Your task to perform on an android device: clear history in the chrome app Image 0: 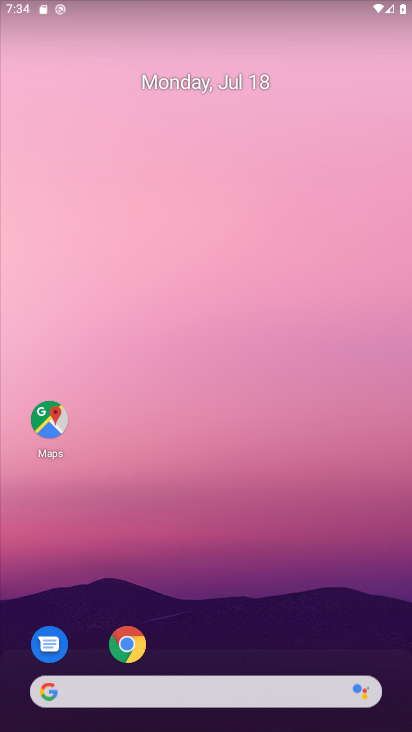
Step 0: click (136, 662)
Your task to perform on an android device: clear history in the chrome app Image 1: 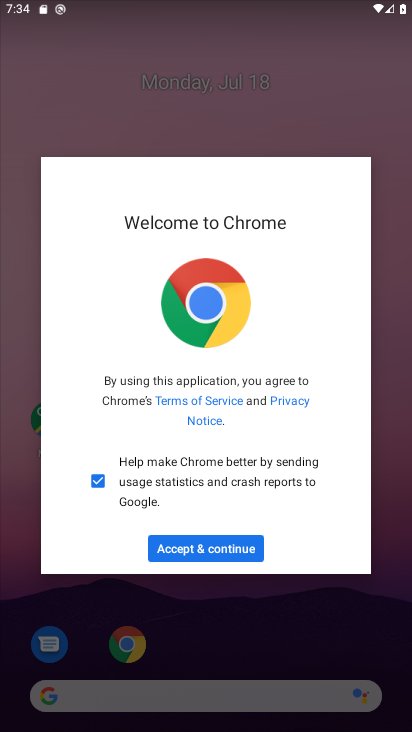
Step 1: click (218, 544)
Your task to perform on an android device: clear history in the chrome app Image 2: 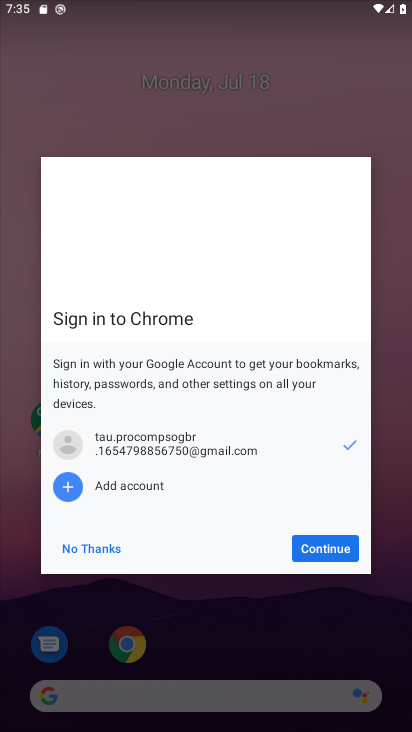
Step 2: click (319, 539)
Your task to perform on an android device: clear history in the chrome app Image 3: 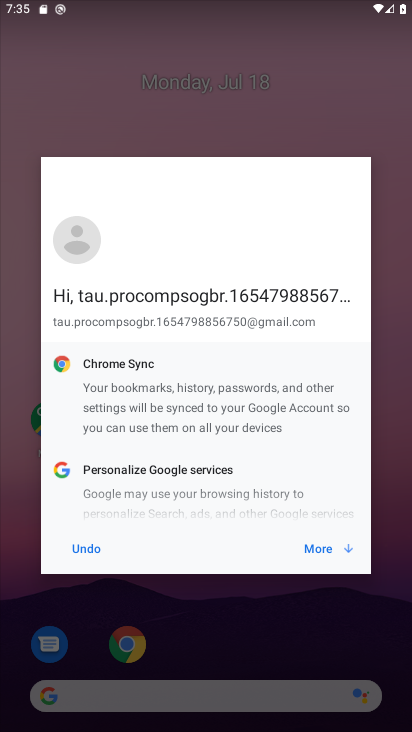
Step 3: click (329, 554)
Your task to perform on an android device: clear history in the chrome app Image 4: 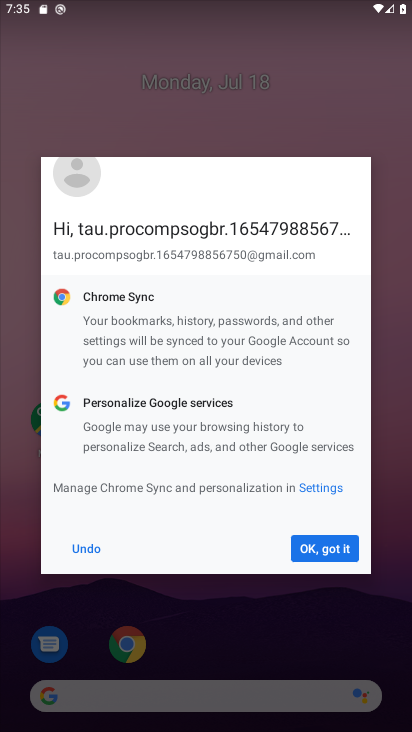
Step 4: click (329, 554)
Your task to perform on an android device: clear history in the chrome app Image 5: 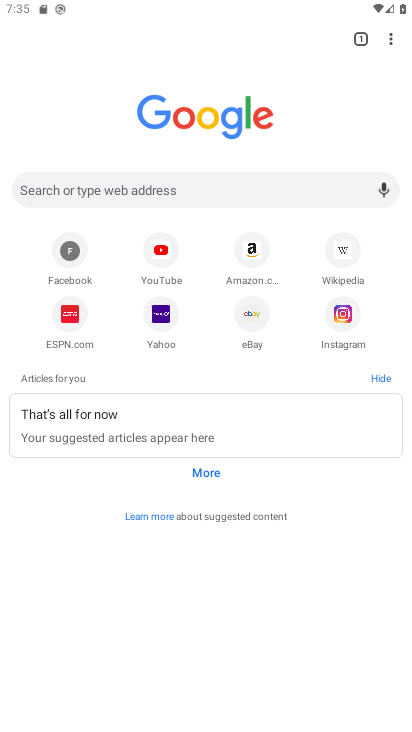
Step 5: click (395, 36)
Your task to perform on an android device: clear history in the chrome app Image 6: 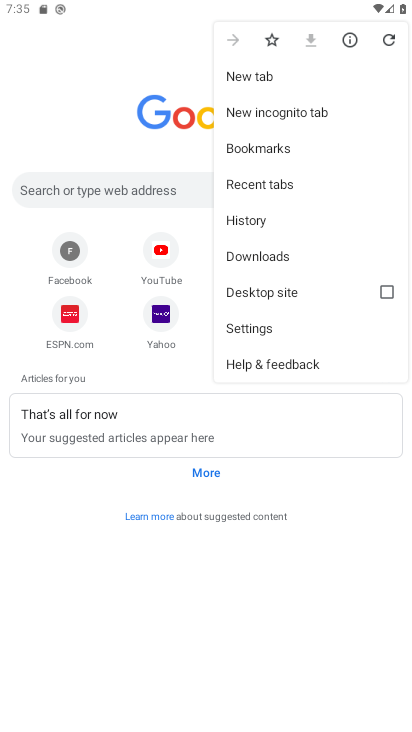
Step 6: click (281, 228)
Your task to perform on an android device: clear history in the chrome app Image 7: 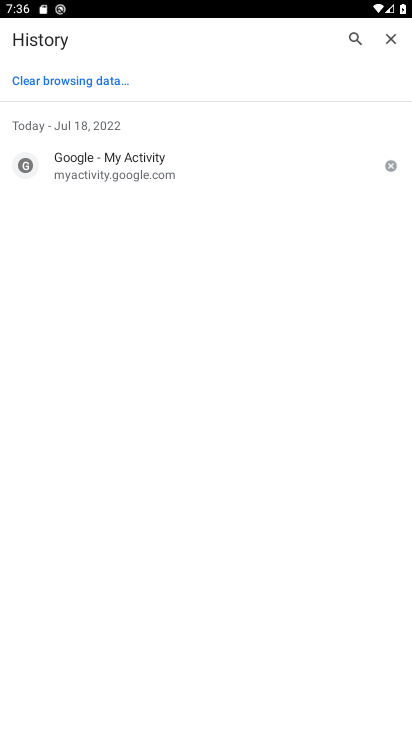
Step 7: click (80, 86)
Your task to perform on an android device: clear history in the chrome app Image 8: 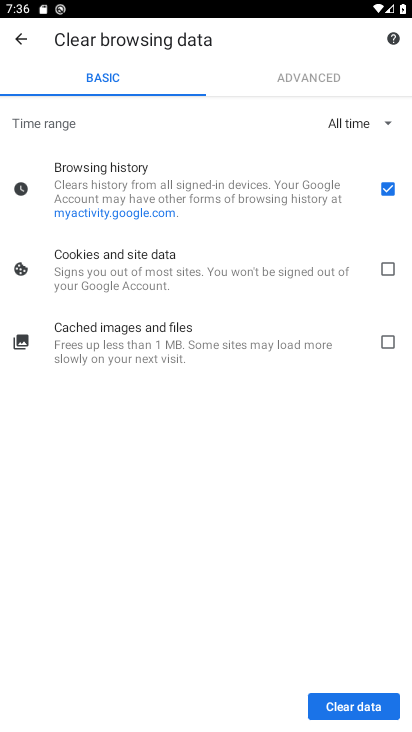
Step 8: click (363, 711)
Your task to perform on an android device: clear history in the chrome app Image 9: 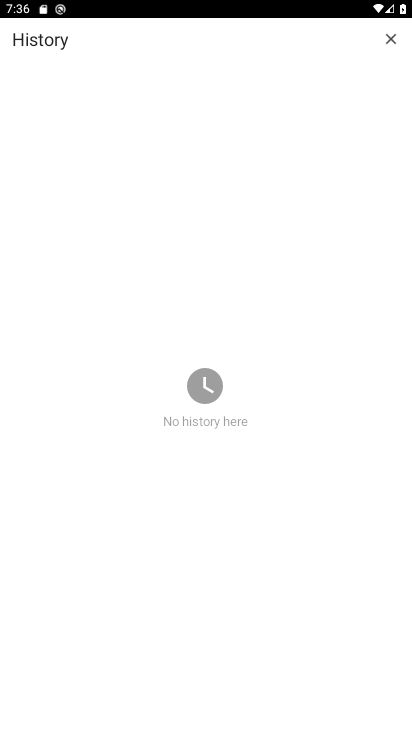
Step 9: task complete